Your task to perform on an android device: Go to Google maps Image 0: 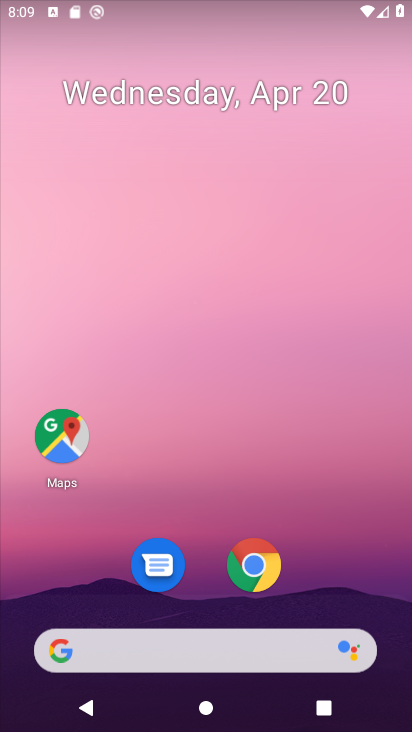
Step 0: drag from (342, 509) to (271, 57)
Your task to perform on an android device: Go to Google maps Image 1: 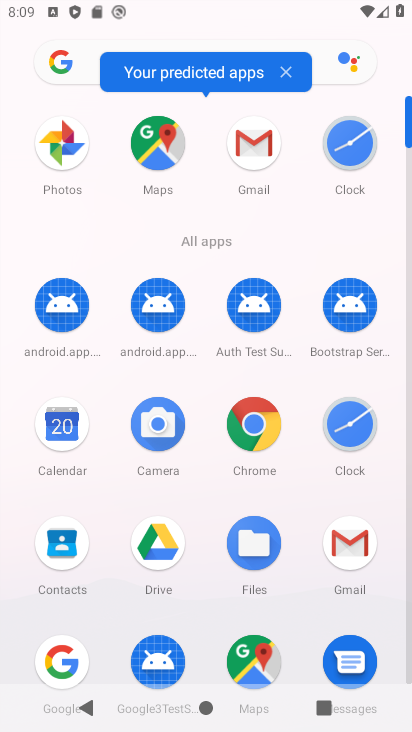
Step 1: click (143, 122)
Your task to perform on an android device: Go to Google maps Image 2: 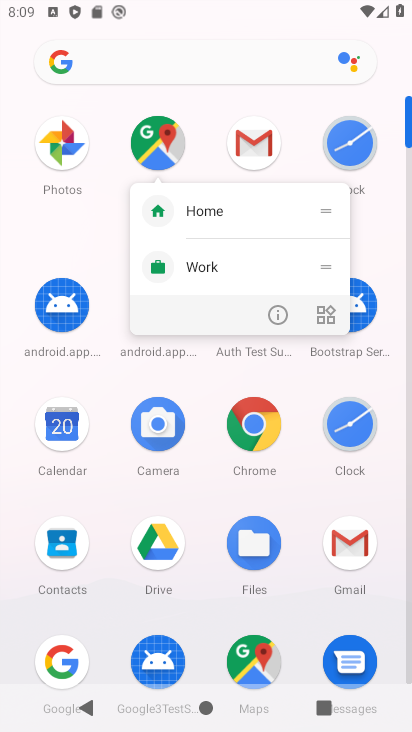
Step 2: click (143, 122)
Your task to perform on an android device: Go to Google maps Image 3: 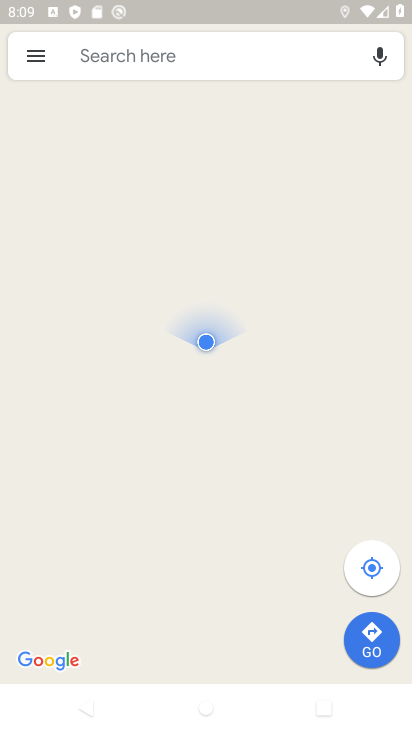
Step 3: task complete